Your task to perform on an android device: What's on my calendar tomorrow? Image 0: 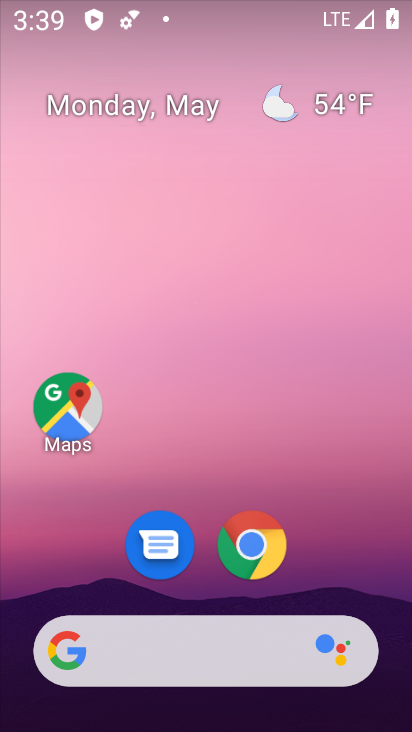
Step 0: drag from (398, 646) to (242, 102)
Your task to perform on an android device: What's on my calendar tomorrow? Image 1: 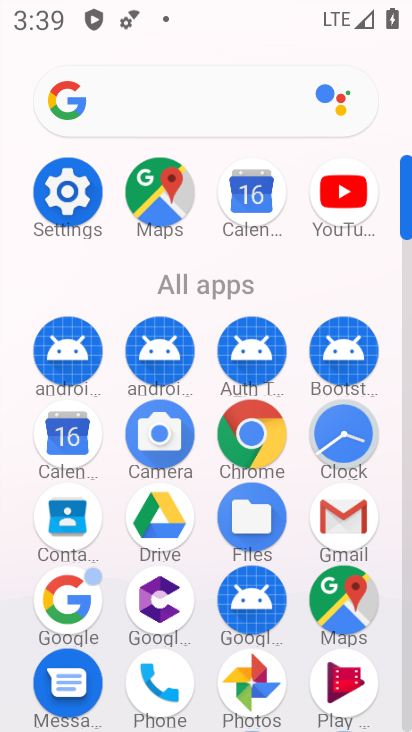
Step 1: click (409, 685)
Your task to perform on an android device: What's on my calendar tomorrow? Image 2: 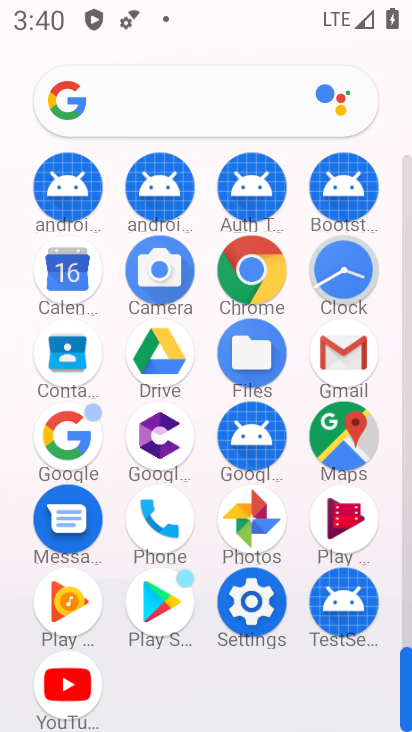
Step 2: click (57, 260)
Your task to perform on an android device: What's on my calendar tomorrow? Image 3: 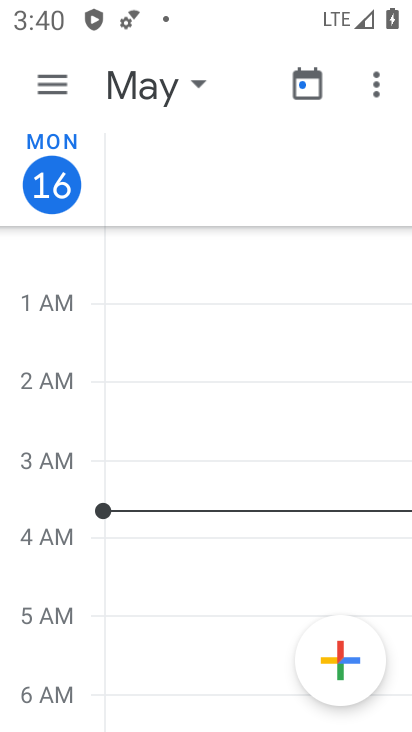
Step 3: click (194, 88)
Your task to perform on an android device: What's on my calendar tomorrow? Image 4: 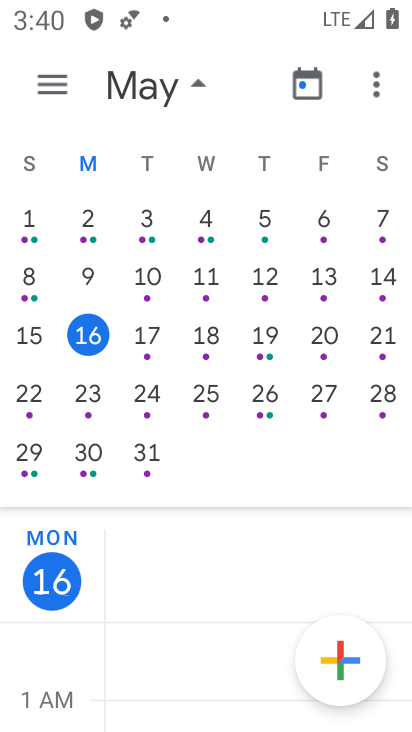
Step 4: click (151, 335)
Your task to perform on an android device: What's on my calendar tomorrow? Image 5: 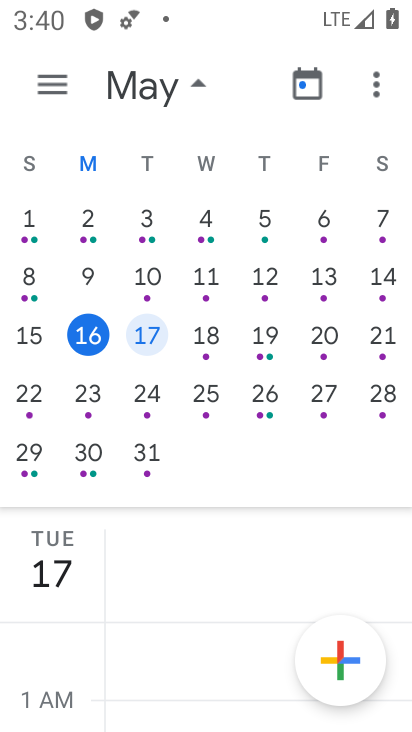
Step 5: task complete